Your task to perform on an android device: Search for Mexican restaurants on Maps Image 0: 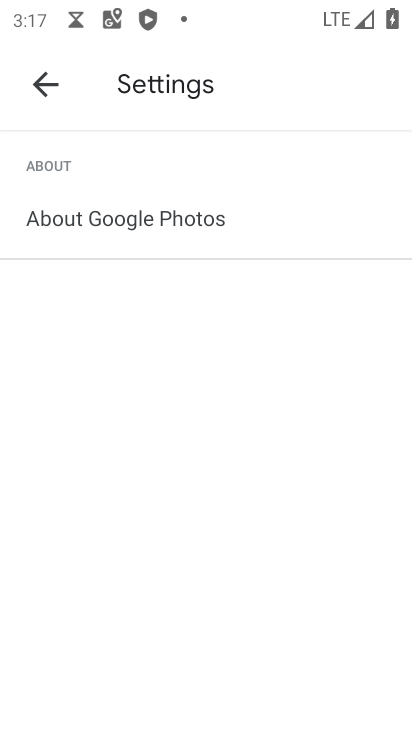
Step 0: press home button
Your task to perform on an android device: Search for Mexican restaurants on Maps Image 1: 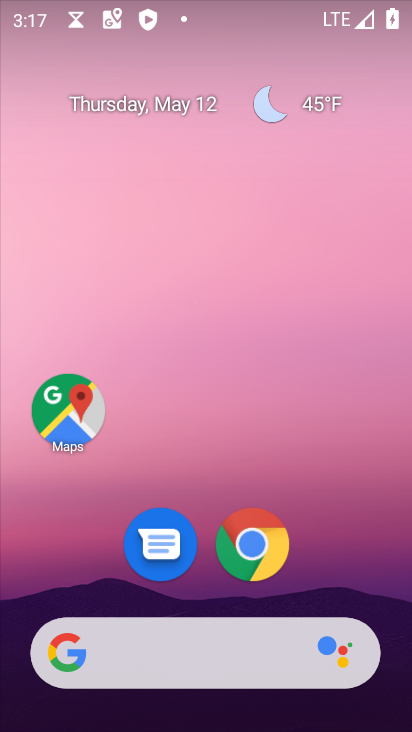
Step 1: click (59, 422)
Your task to perform on an android device: Search for Mexican restaurants on Maps Image 2: 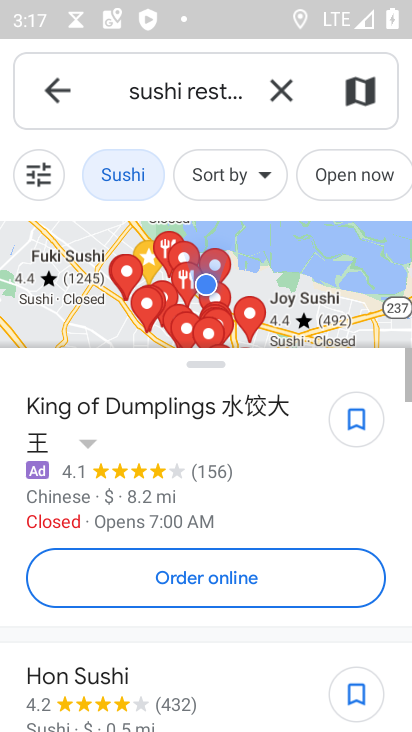
Step 2: click (269, 92)
Your task to perform on an android device: Search for Mexican restaurants on Maps Image 3: 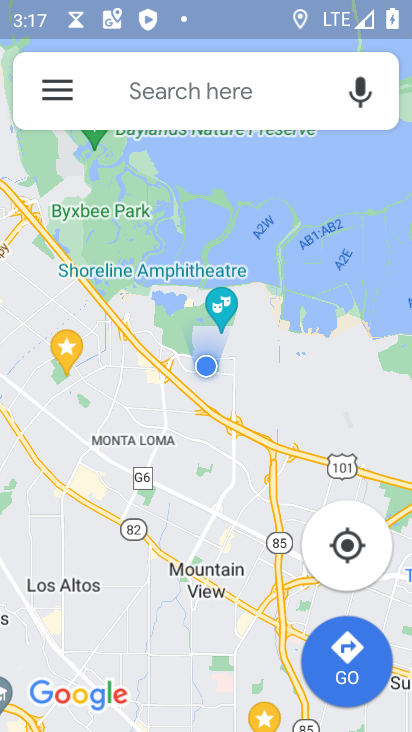
Step 3: click (186, 95)
Your task to perform on an android device: Search for Mexican restaurants on Maps Image 4: 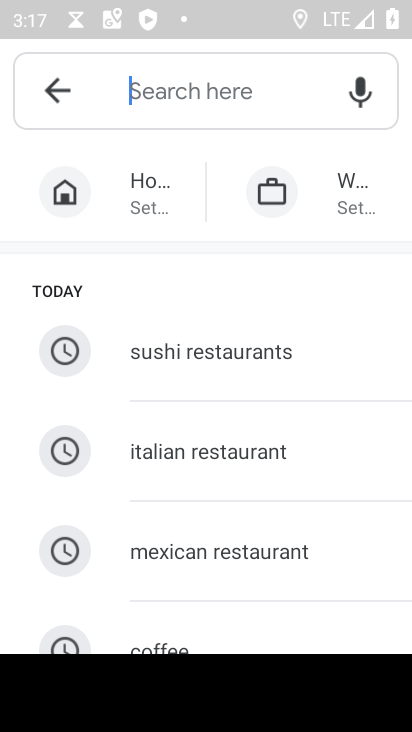
Step 4: type "mexican restaurants"
Your task to perform on an android device: Search for Mexican restaurants on Maps Image 5: 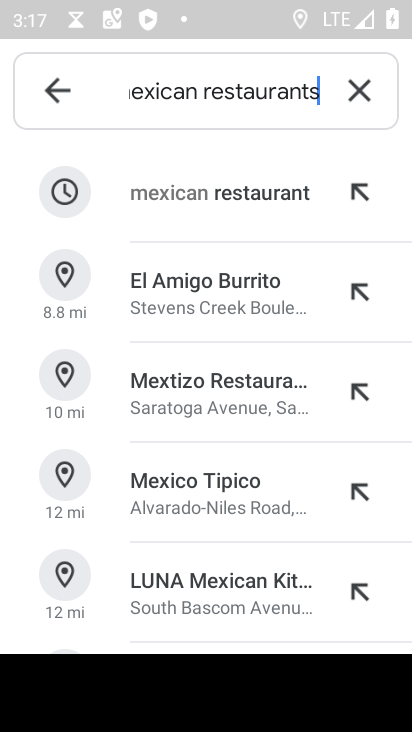
Step 5: click (103, 196)
Your task to perform on an android device: Search for Mexican restaurants on Maps Image 6: 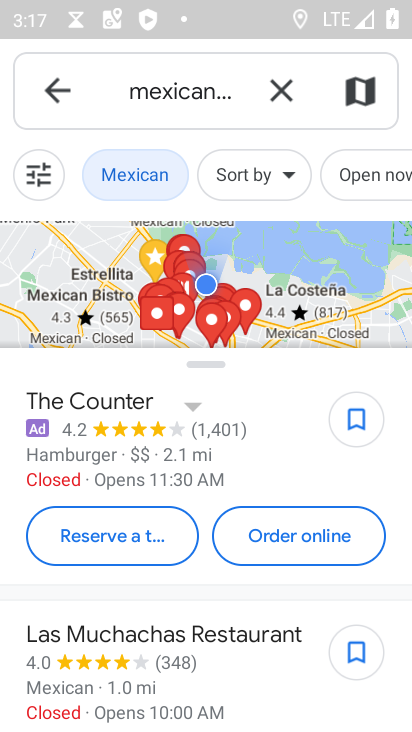
Step 6: task complete